Your task to perform on an android device: What's the weather going to be tomorrow? Image 0: 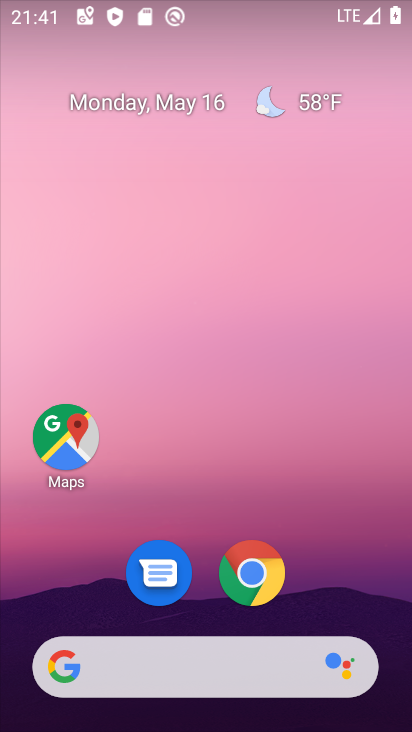
Step 0: click (268, 100)
Your task to perform on an android device: What's the weather going to be tomorrow? Image 1: 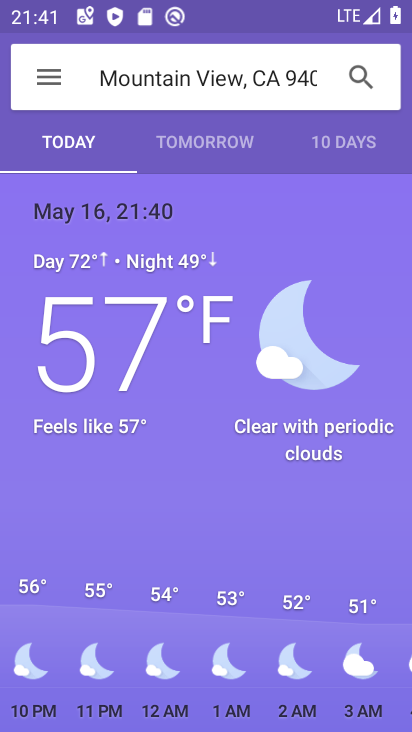
Step 1: click (226, 145)
Your task to perform on an android device: What's the weather going to be tomorrow? Image 2: 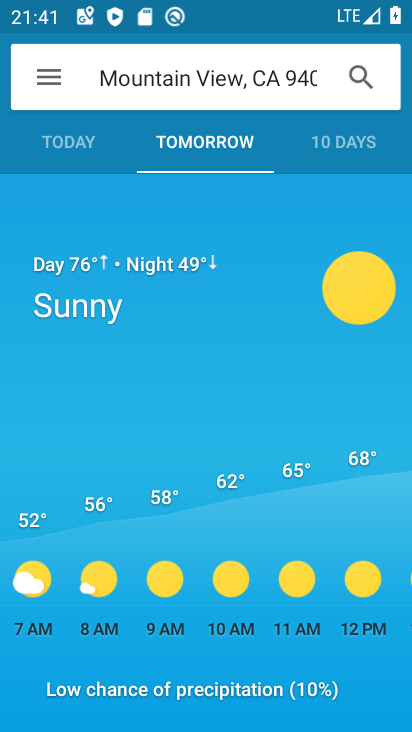
Step 2: task complete